Your task to perform on an android device: Clear the cart on target.com. Image 0: 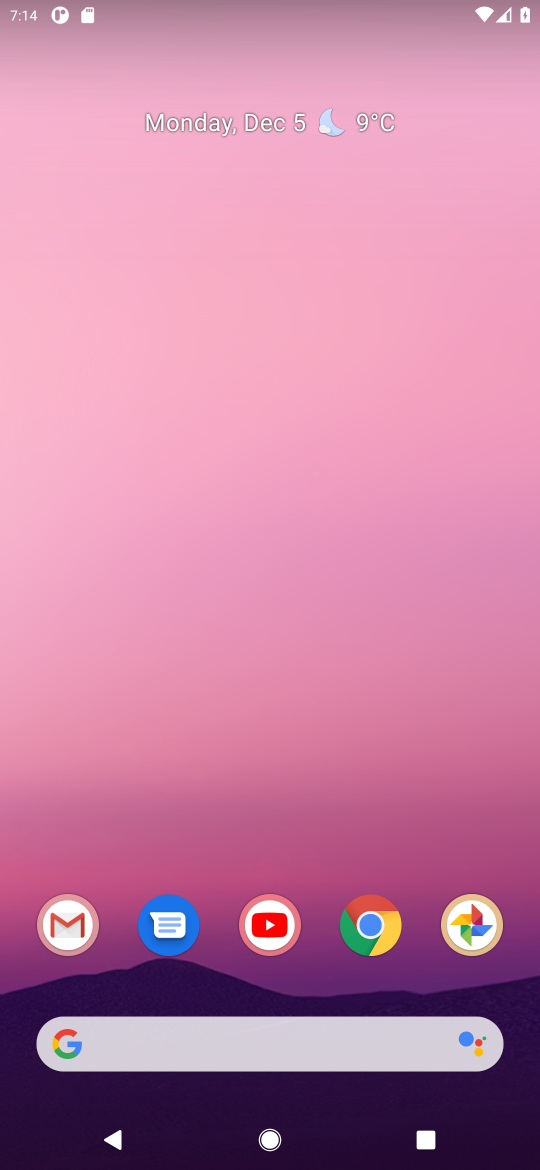
Step 0: click (366, 935)
Your task to perform on an android device: Clear the cart on target.com. Image 1: 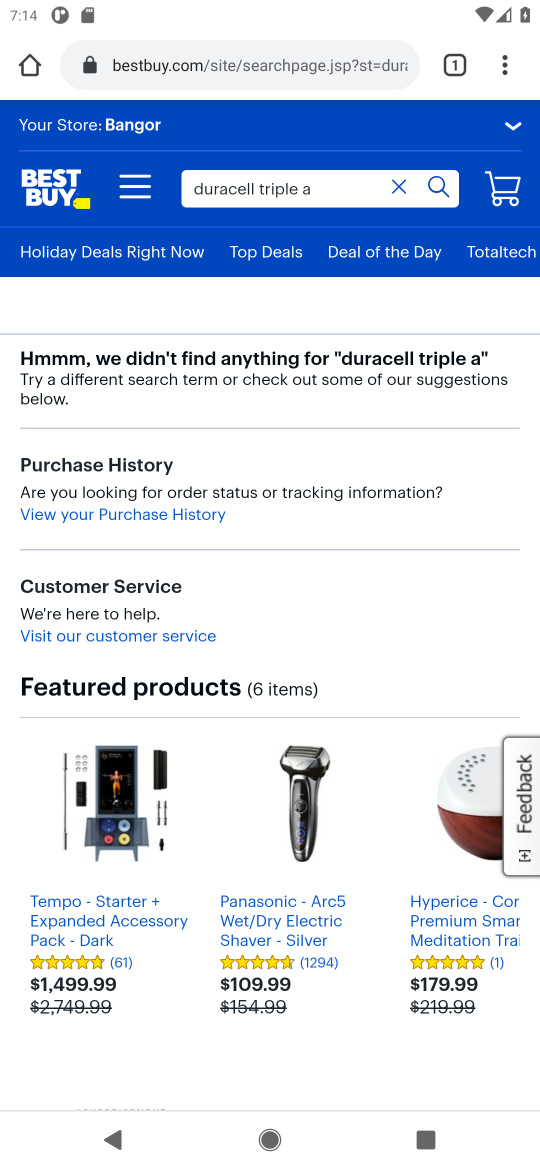
Step 1: click (220, 64)
Your task to perform on an android device: Clear the cart on target.com. Image 2: 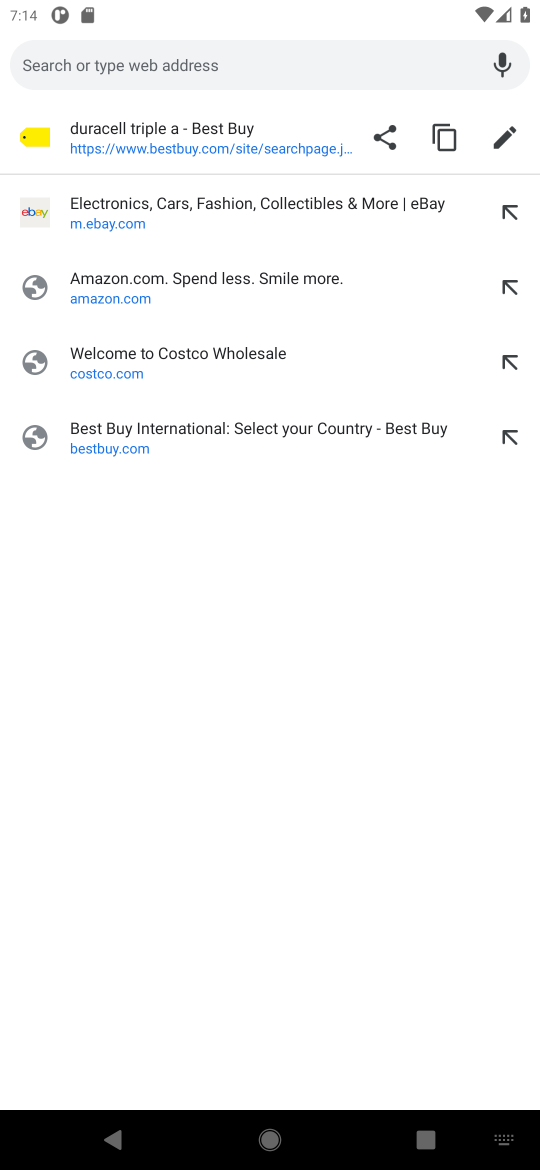
Step 2: type "target.com"
Your task to perform on an android device: Clear the cart on target.com. Image 3: 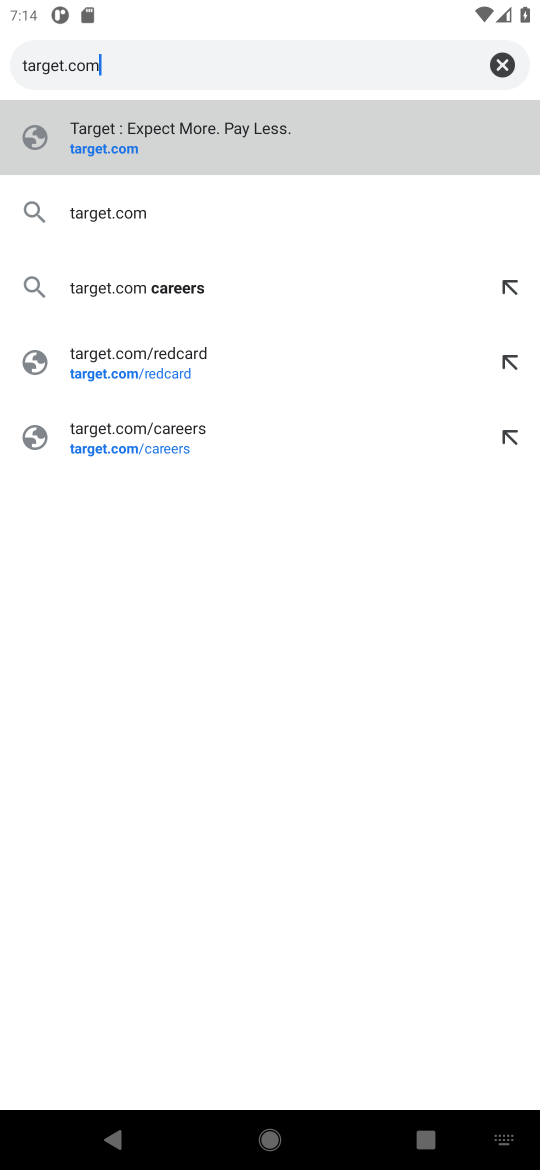
Step 3: click (116, 157)
Your task to perform on an android device: Clear the cart on target.com. Image 4: 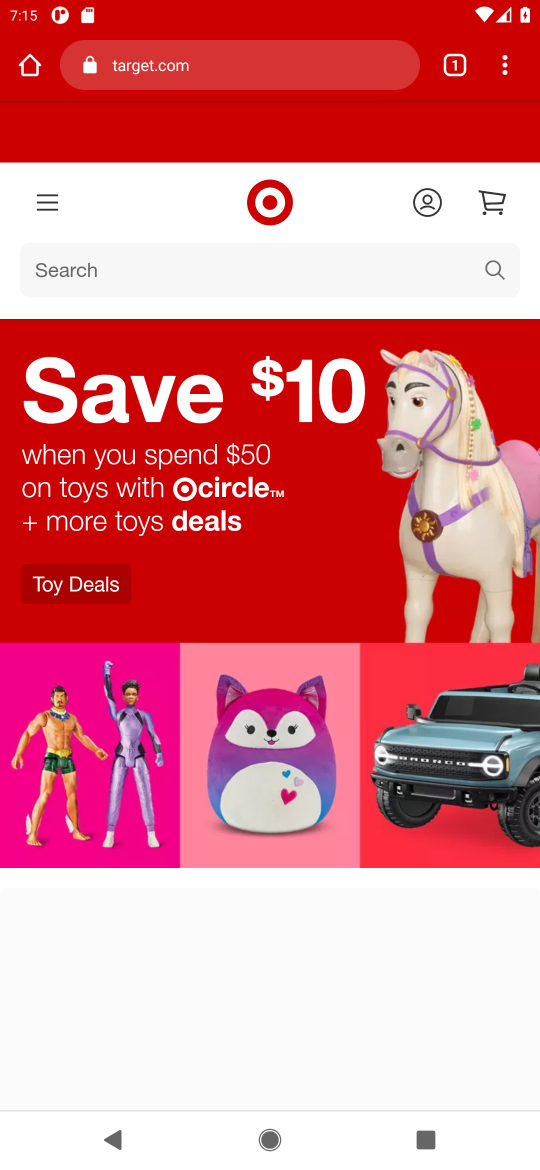
Step 4: click (492, 203)
Your task to perform on an android device: Clear the cart on target.com. Image 5: 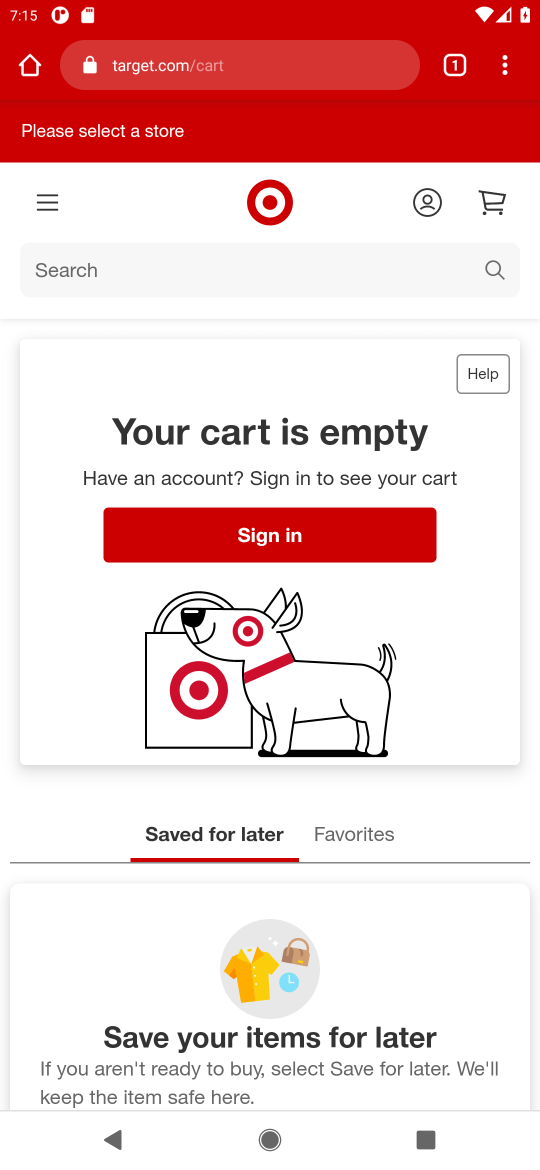
Step 5: task complete